Your task to perform on an android device: change notification settings in the gmail app Image 0: 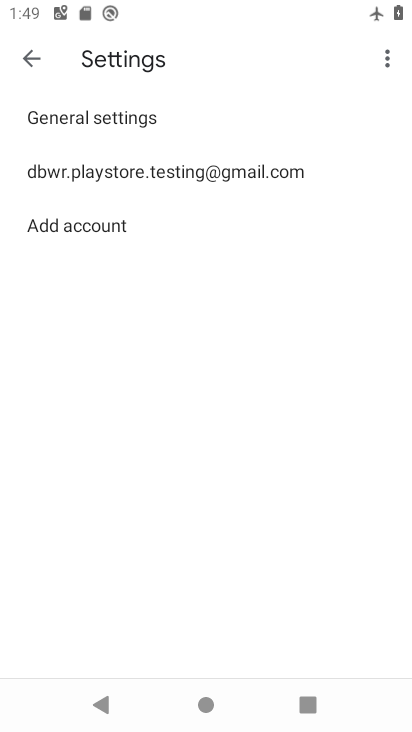
Step 0: press home button
Your task to perform on an android device: change notification settings in the gmail app Image 1: 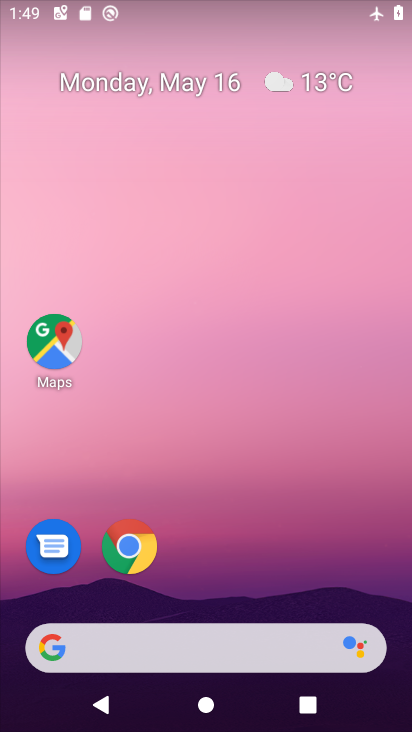
Step 1: drag from (228, 641) to (186, 205)
Your task to perform on an android device: change notification settings in the gmail app Image 2: 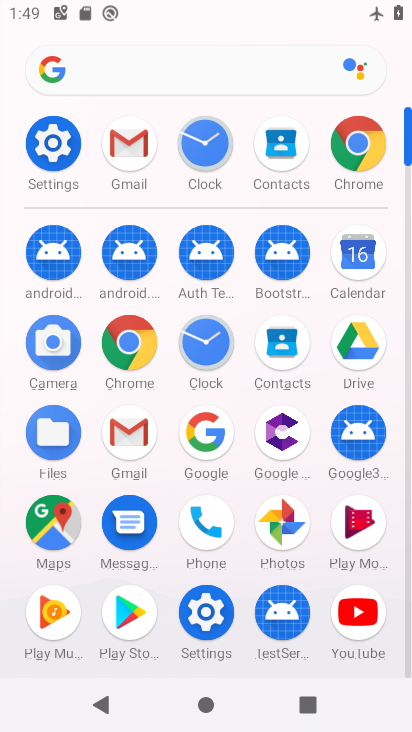
Step 2: click (132, 426)
Your task to perform on an android device: change notification settings in the gmail app Image 3: 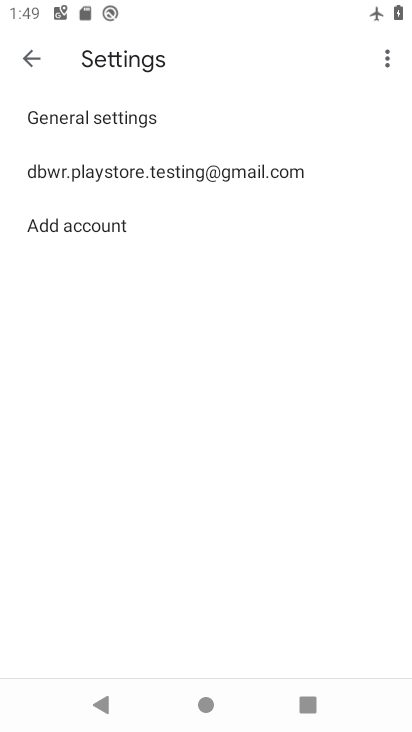
Step 3: click (104, 173)
Your task to perform on an android device: change notification settings in the gmail app Image 4: 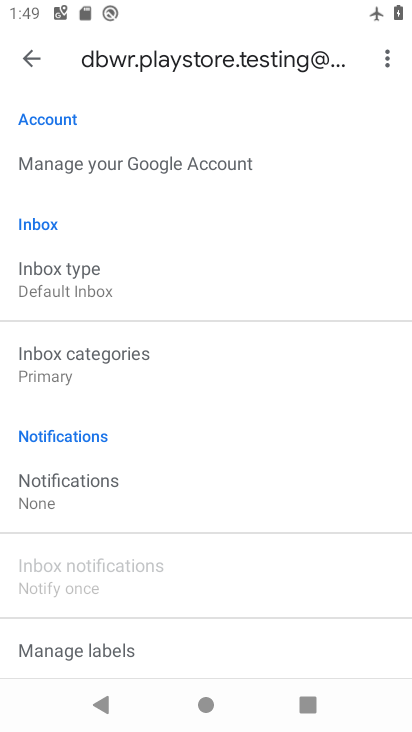
Step 4: click (48, 481)
Your task to perform on an android device: change notification settings in the gmail app Image 5: 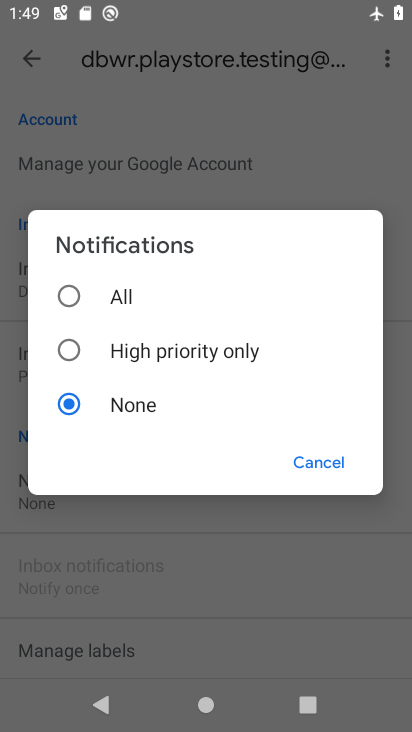
Step 5: click (71, 297)
Your task to perform on an android device: change notification settings in the gmail app Image 6: 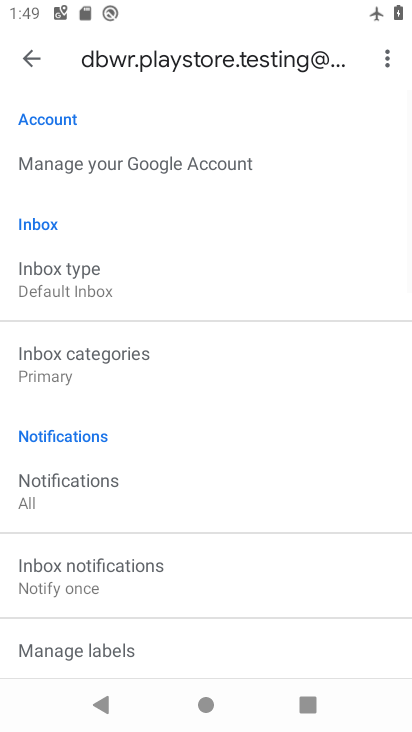
Step 6: task complete